Your task to perform on an android device: manage bookmarks in the chrome app Image 0: 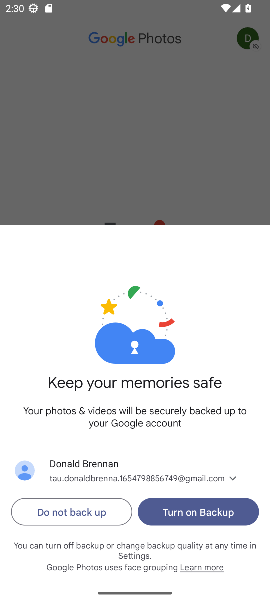
Step 0: click (197, 509)
Your task to perform on an android device: manage bookmarks in the chrome app Image 1: 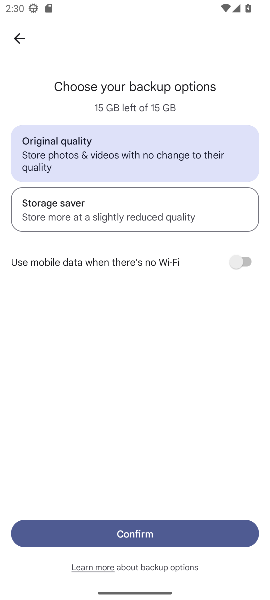
Step 1: click (104, 209)
Your task to perform on an android device: manage bookmarks in the chrome app Image 2: 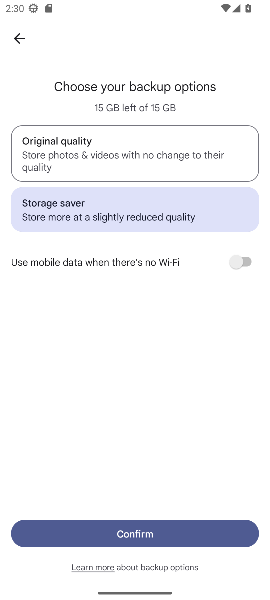
Step 2: press home button
Your task to perform on an android device: manage bookmarks in the chrome app Image 3: 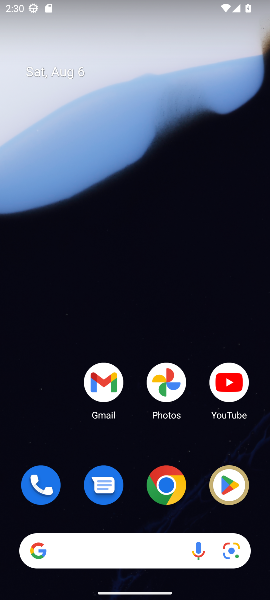
Step 3: click (165, 482)
Your task to perform on an android device: manage bookmarks in the chrome app Image 4: 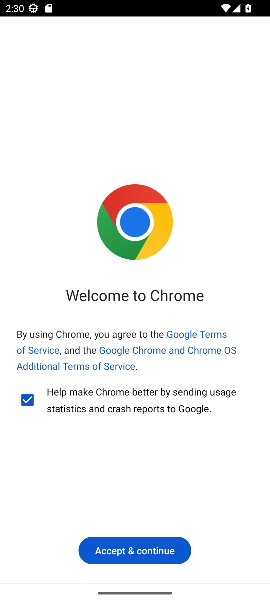
Step 4: click (128, 543)
Your task to perform on an android device: manage bookmarks in the chrome app Image 5: 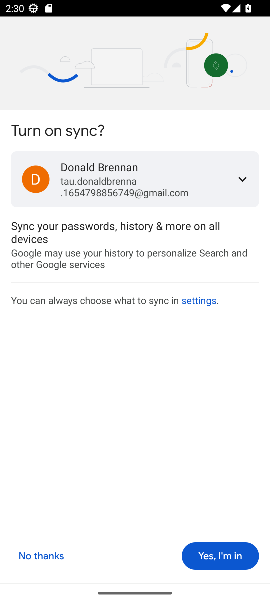
Step 5: click (222, 550)
Your task to perform on an android device: manage bookmarks in the chrome app Image 6: 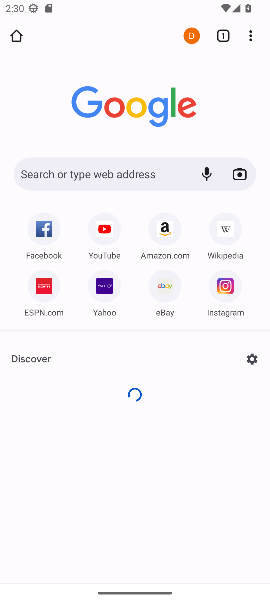
Step 6: click (248, 33)
Your task to perform on an android device: manage bookmarks in the chrome app Image 7: 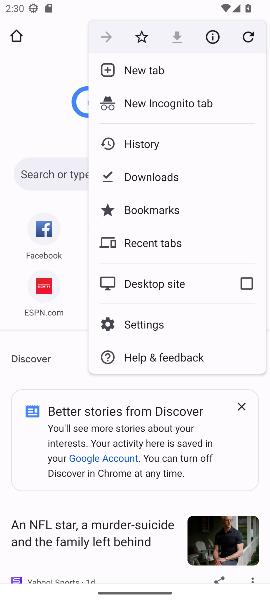
Step 7: click (184, 208)
Your task to perform on an android device: manage bookmarks in the chrome app Image 8: 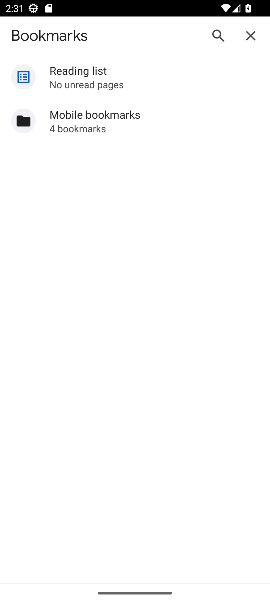
Step 8: click (121, 123)
Your task to perform on an android device: manage bookmarks in the chrome app Image 9: 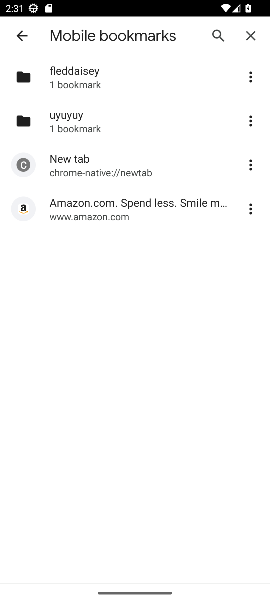
Step 9: click (125, 209)
Your task to perform on an android device: manage bookmarks in the chrome app Image 10: 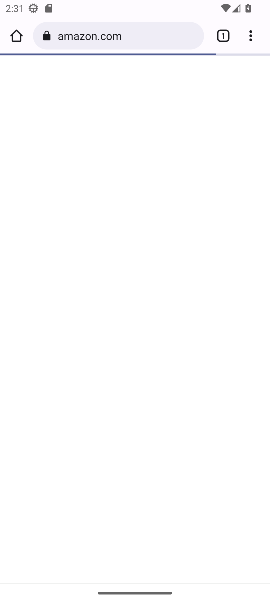
Step 10: task complete